Your task to perform on an android device: Go to sound settings Image 0: 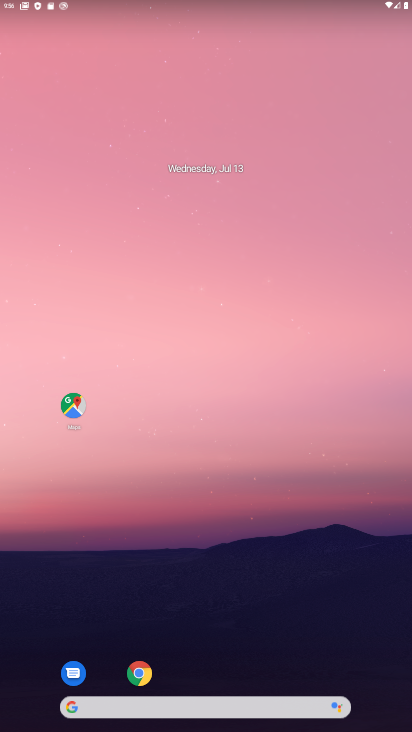
Step 0: drag from (253, 673) to (395, 0)
Your task to perform on an android device: Go to sound settings Image 1: 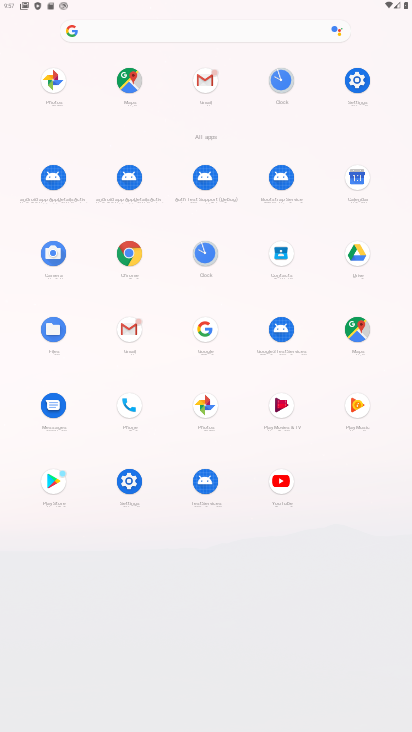
Step 1: click (136, 492)
Your task to perform on an android device: Go to sound settings Image 2: 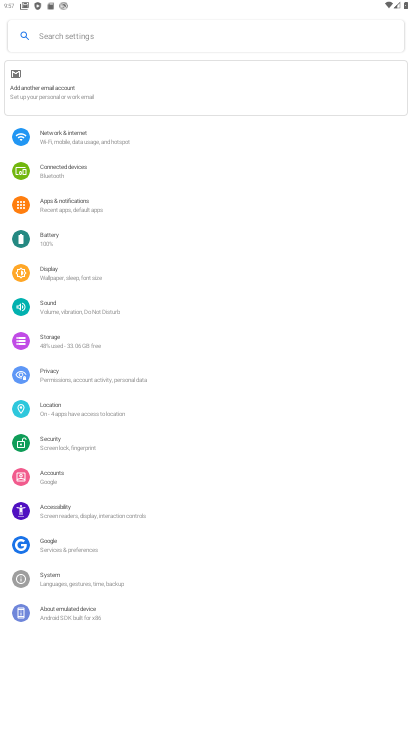
Step 2: click (55, 304)
Your task to perform on an android device: Go to sound settings Image 3: 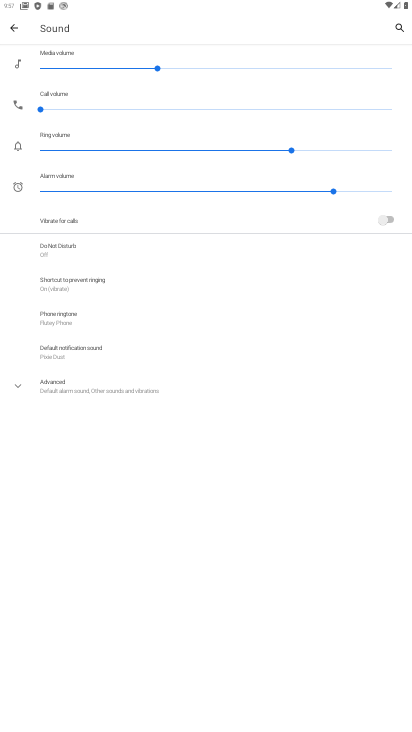
Step 3: task complete